Your task to perform on an android device: Open ESPN.com Image 0: 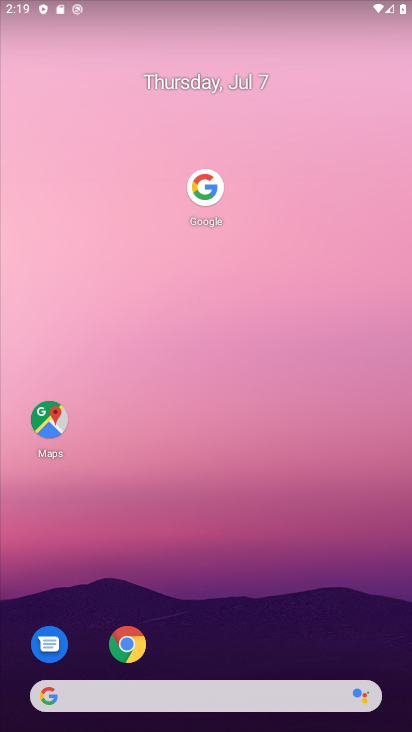
Step 0: click (134, 637)
Your task to perform on an android device: Open ESPN.com Image 1: 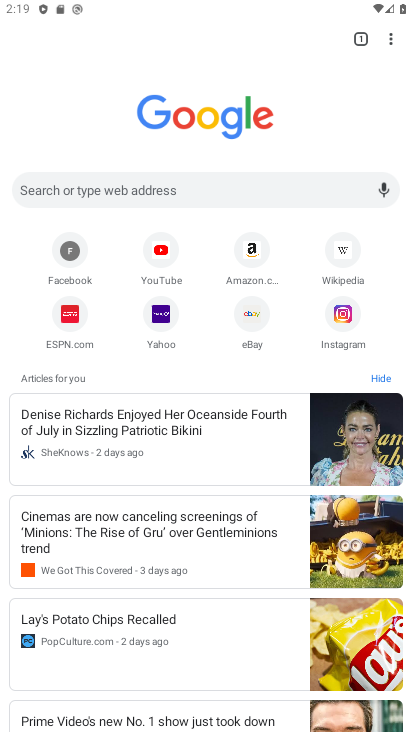
Step 1: click (71, 313)
Your task to perform on an android device: Open ESPN.com Image 2: 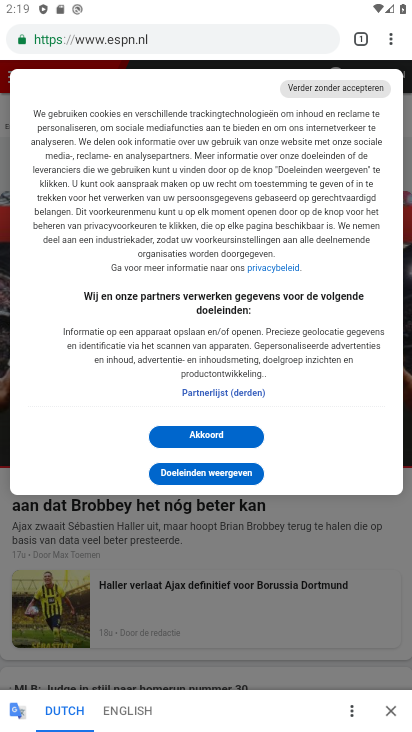
Step 2: click (141, 712)
Your task to perform on an android device: Open ESPN.com Image 3: 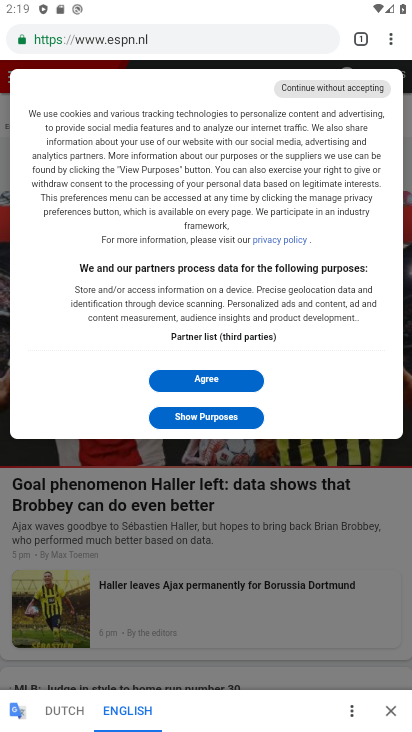
Step 3: click (221, 379)
Your task to perform on an android device: Open ESPN.com Image 4: 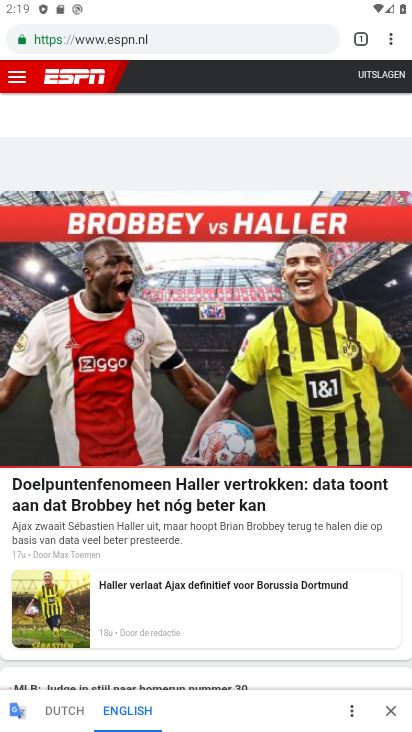
Step 4: task complete